Your task to perform on an android device: allow cookies in the chrome app Image 0: 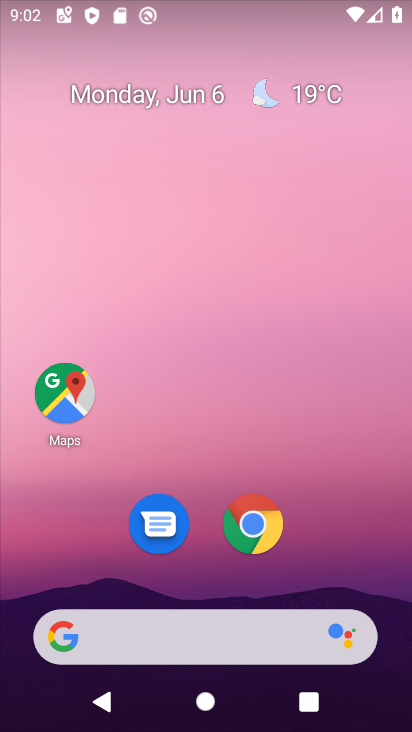
Step 0: click (262, 529)
Your task to perform on an android device: allow cookies in the chrome app Image 1: 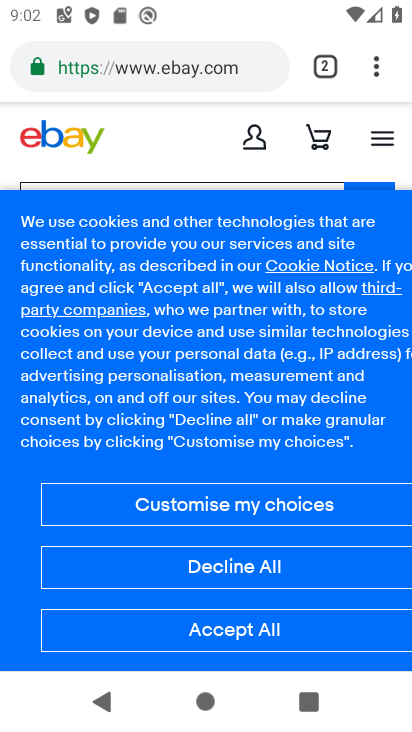
Step 1: click (364, 66)
Your task to perform on an android device: allow cookies in the chrome app Image 2: 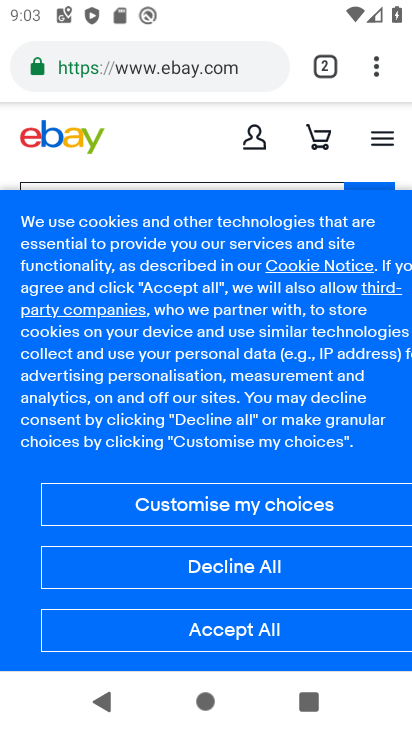
Step 2: click (374, 65)
Your task to perform on an android device: allow cookies in the chrome app Image 3: 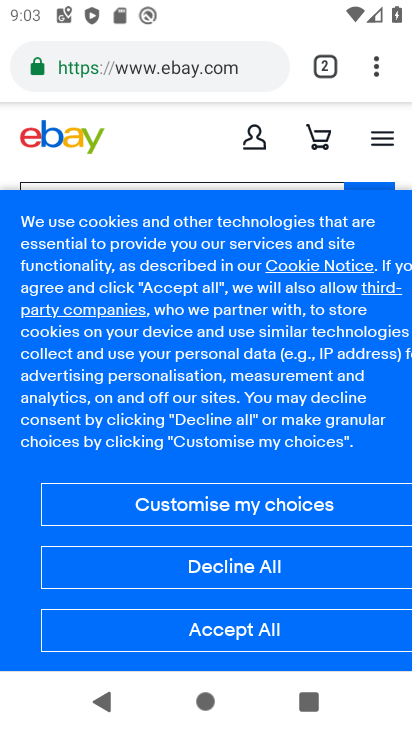
Step 3: click (374, 67)
Your task to perform on an android device: allow cookies in the chrome app Image 4: 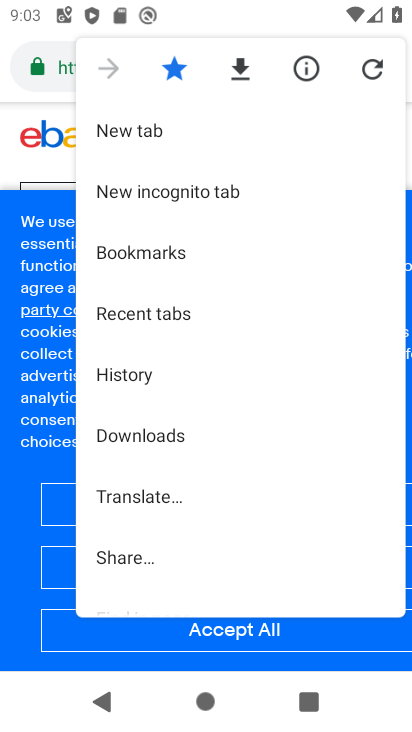
Step 4: drag from (263, 412) to (226, 154)
Your task to perform on an android device: allow cookies in the chrome app Image 5: 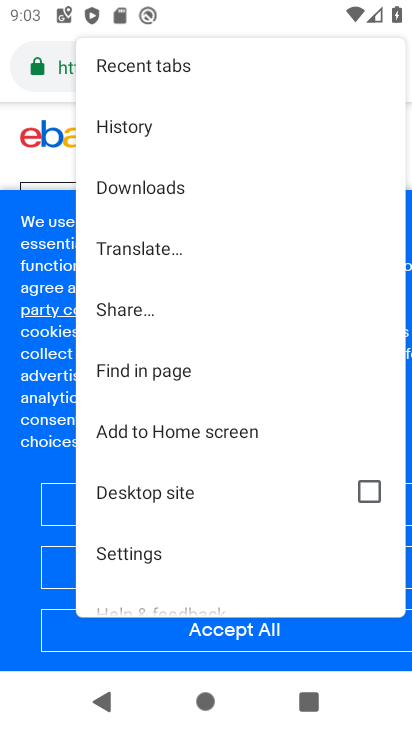
Step 5: click (162, 542)
Your task to perform on an android device: allow cookies in the chrome app Image 6: 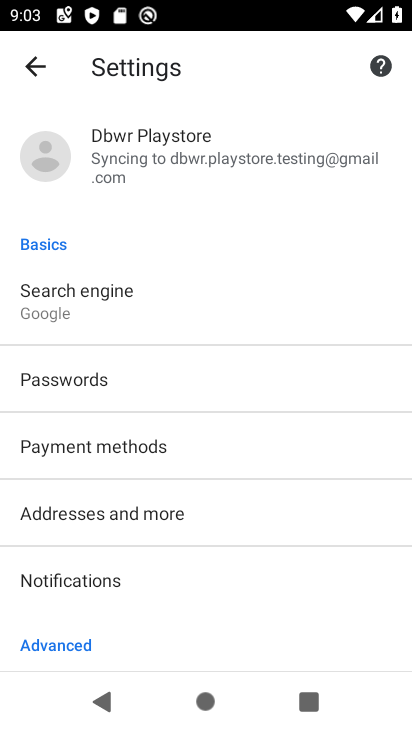
Step 6: drag from (222, 469) to (198, 202)
Your task to perform on an android device: allow cookies in the chrome app Image 7: 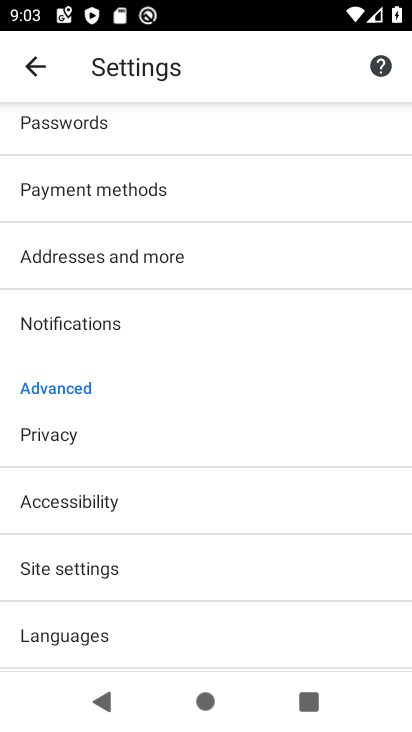
Step 7: click (166, 573)
Your task to perform on an android device: allow cookies in the chrome app Image 8: 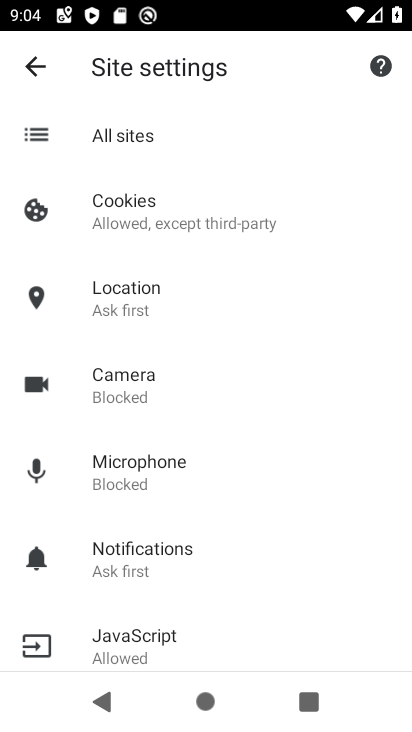
Step 8: task complete